Your task to perform on an android device: stop showing notifications on the lock screen Image 0: 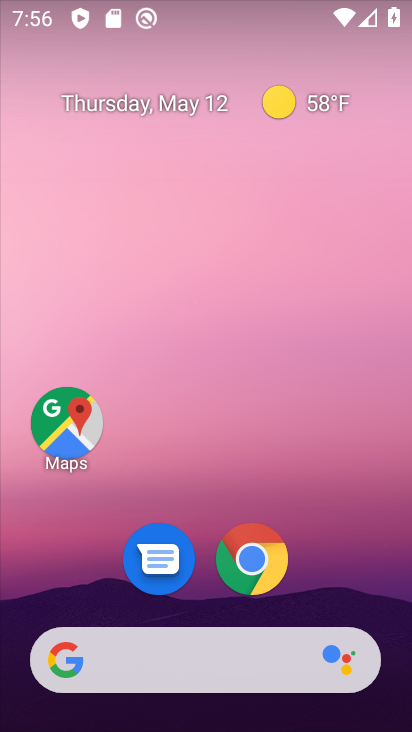
Step 0: drag from (306, 596) to (257, 84)
Your task to perform on an android device: stop showing notifications on the lock screen Image 1: 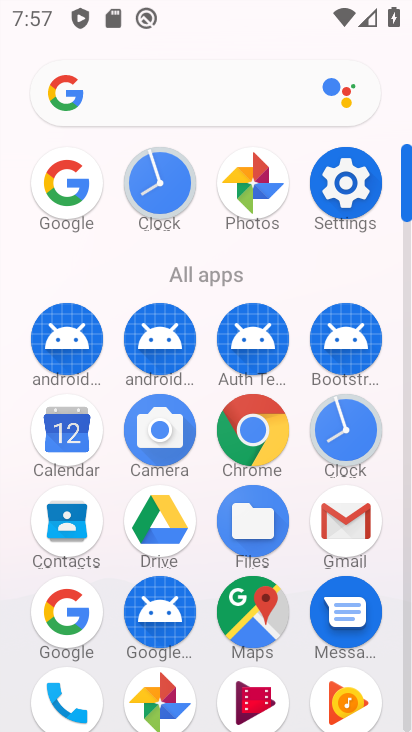
Step 1: click (347, 182)
Your task to perform on an android device: stop showing notifications on the lock screen Image 2: 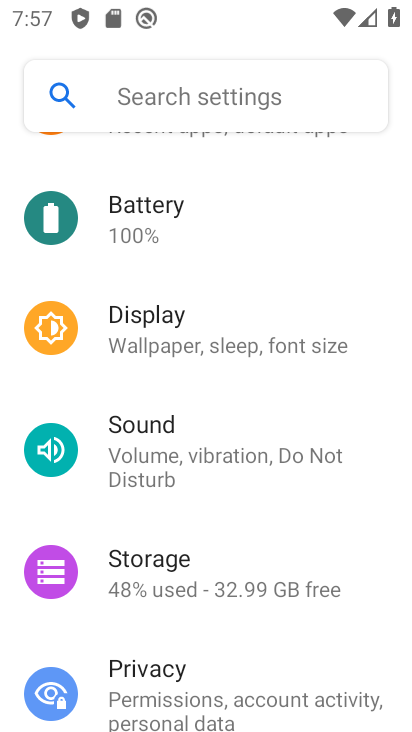
Step 2: drag from (254, 285) to (241, 399)
Your task to perform on an android device: stop showing notifications on the lock screen Image 3: 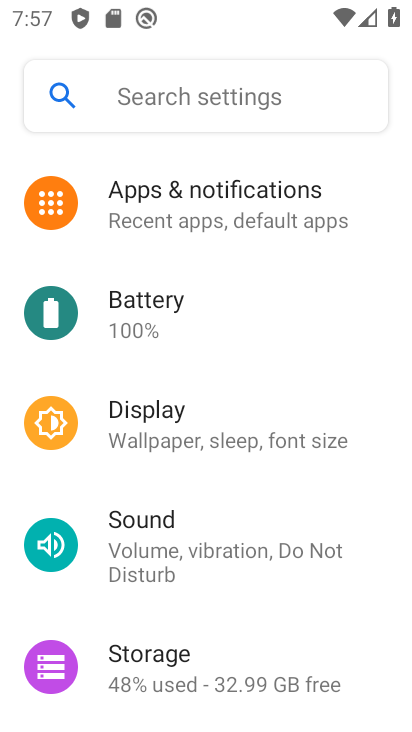
Step 3: click (220, 206)
Your task to perform on an android device: stop showing notifications on the lock screen Image 4: 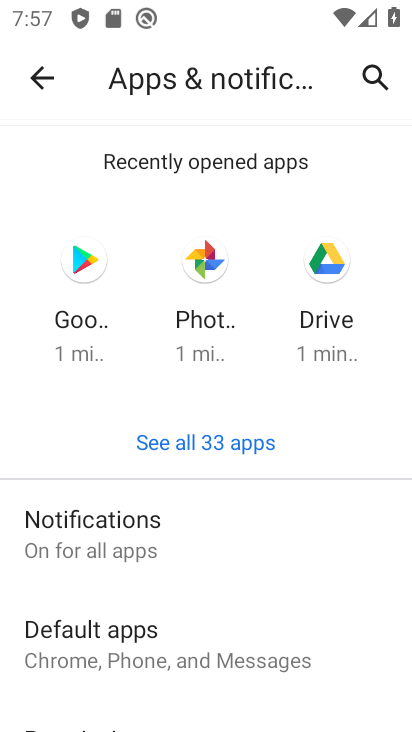
Step 4: click (130, 523)
Your task to perform on an android device: stop showing notifications on the lock screen Image 5: 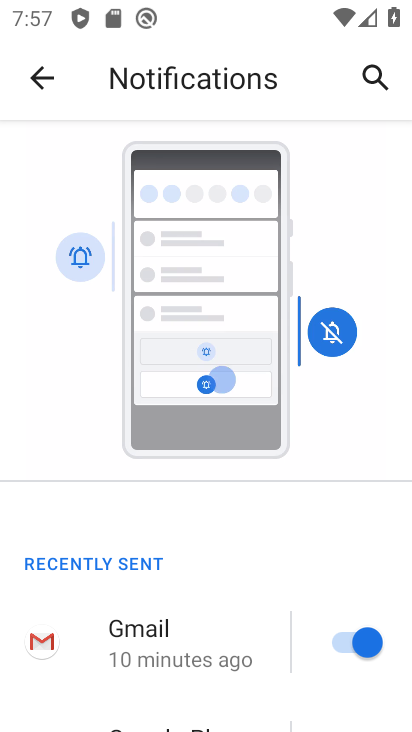
Step 5: drag from (211, 558) to (245, 359)
Your task to perform on an android device: stop showing notifications on the lock screen Image 6: 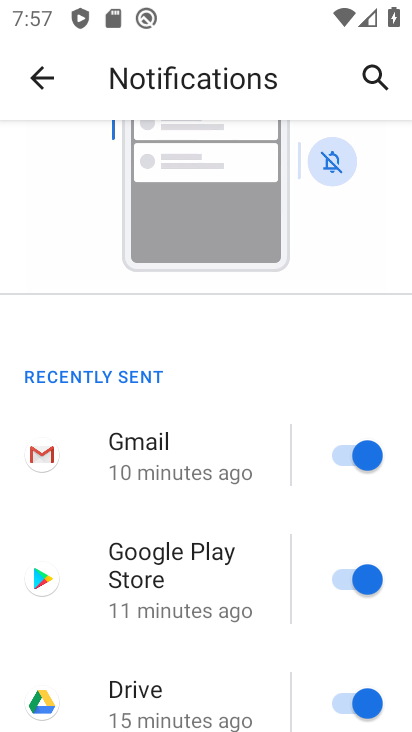
Step 6: drag from (190, 635) to (248, 444)
Your task to perform on an android device: stop showing notifications on the lock screen Image 7: 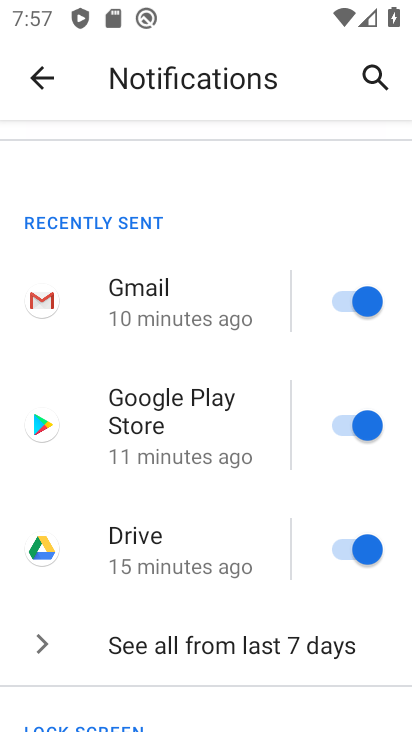
Step 7: drag from (175, 601) to (265, 429)
Your task to perform on an android device: stop showing notifications on the lock screen Image 8: 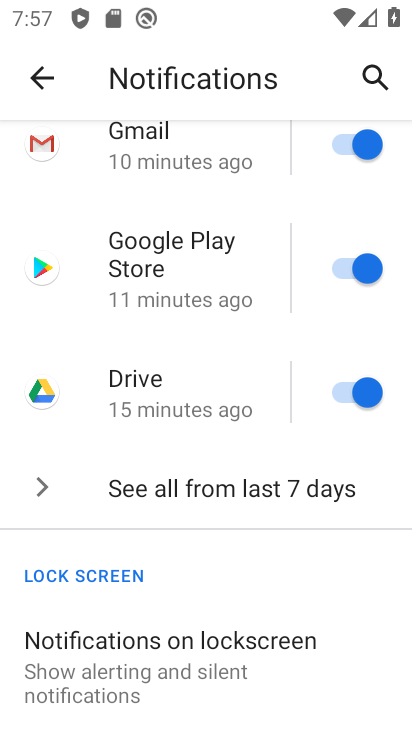
Step 8: drag from (200, 578) to (258, 450)
Your task to perform on an android device: stop showing notifications on the lock screen Image 9: 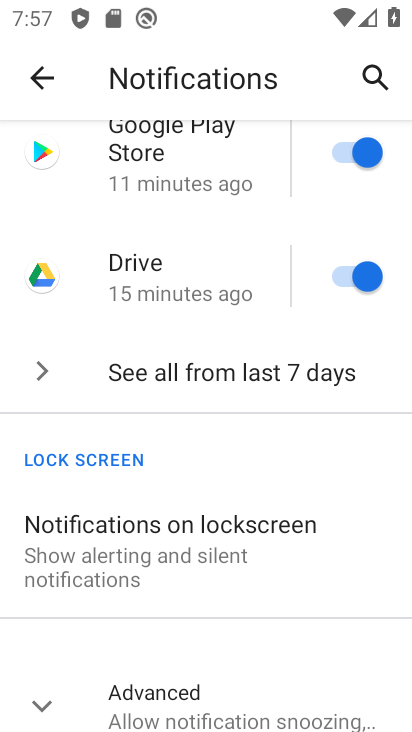
Step 9: click (192, 527)
Your task to perform on an android device: stop showing notifications on the lock screen Image 10: 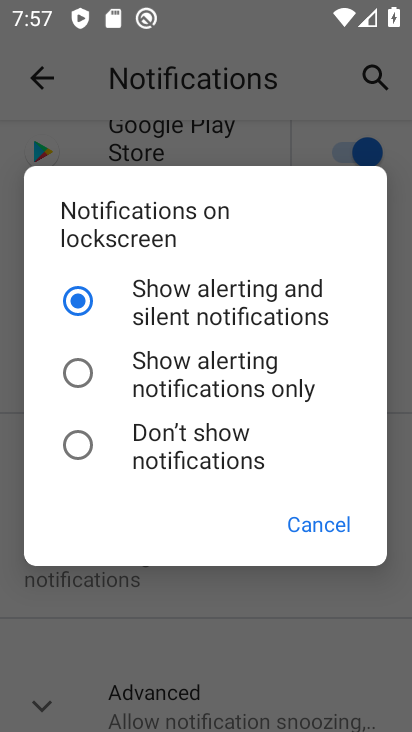
Step 10: click (79, 442)
Your task to perform on an android device: stop showing notifications on the lock screen Image 11: 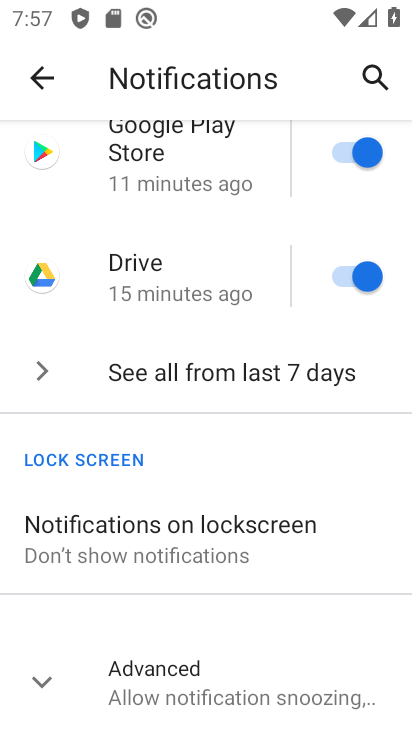
Step 11: task complete